Your task to perform on an android device: make emails show in primary in the gmail app Image 0: 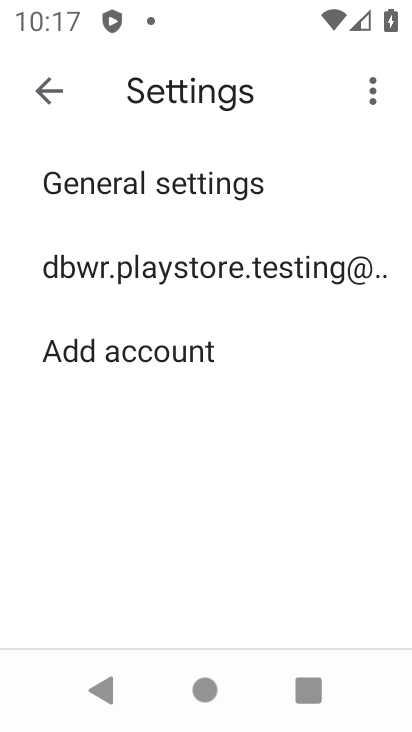
Step 0: click (255, 269)
Your task to perform on an android device: make emails show in primary in the gmail app Image 1: 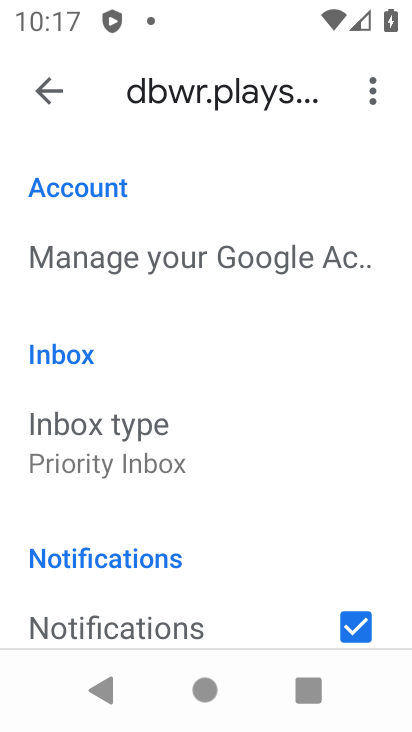
Step 1: drag from (136, 542) to (142, 227)
Your task to perform on an android device: make emails show in primary in the gmail app Image 2: 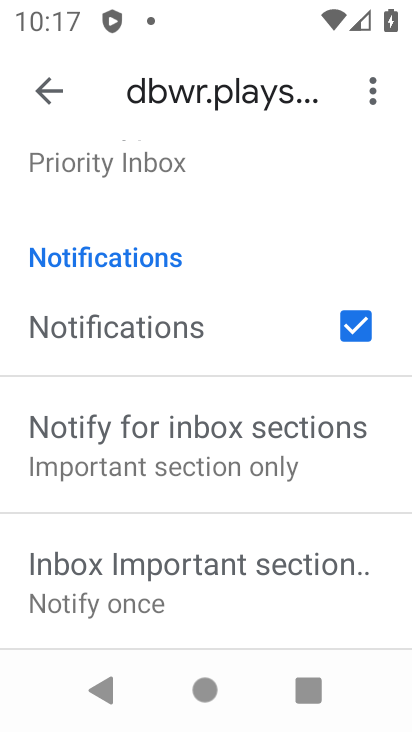
Step 2: drag from (206, 197) to (198, 559)
Your task to perform on an android device: make emails show in primary in the gmail app Image 3: 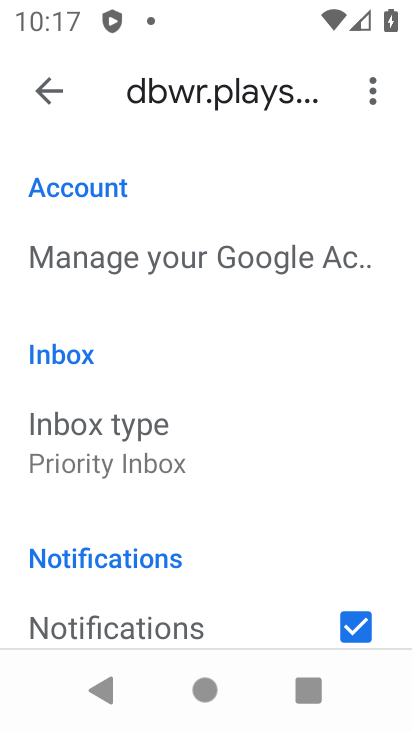
Step 3: click (108, 434)
Your task to perform on an android device: make emails show in primary in the gmail app Image 4: 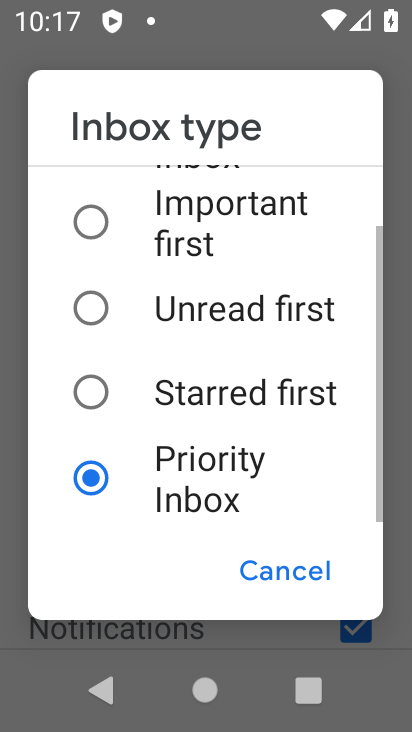
Step 4: drag from (236, 203) to (239, 437)
Your task to perform on an android device: make emails show in primary in the gmail app Image 5: 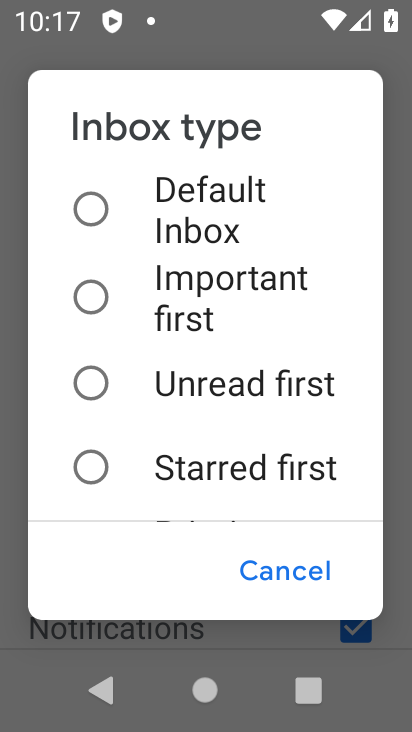
Step 5: click (88, 206)
Your task to perform on an android device: make emails show in primary in the gmail app Image 6: 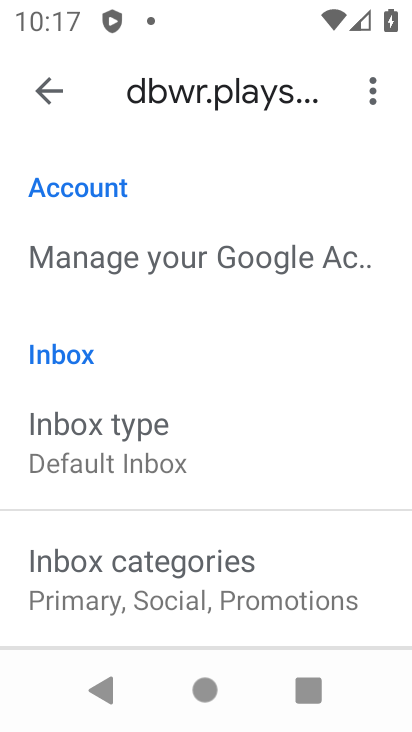
Step 6: drag from (239, 599) to (238, 385)
Your task to perform on an android device: make emails show in primary in the gmail app Image 7: 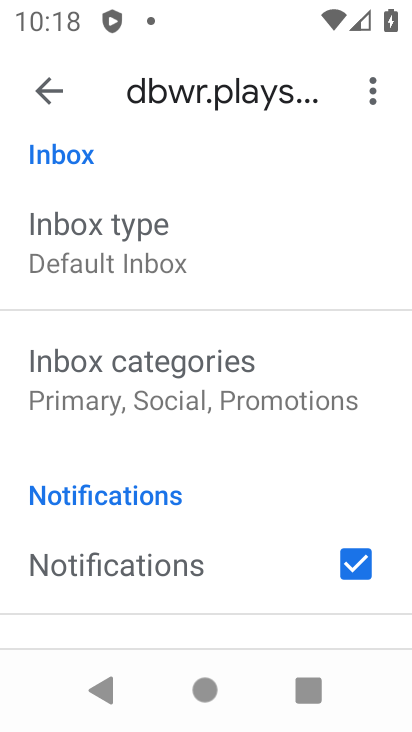
Step 7: click (218, 375)
Your task to perform on an android device: make emails show in primary in the gmail app Image 8: 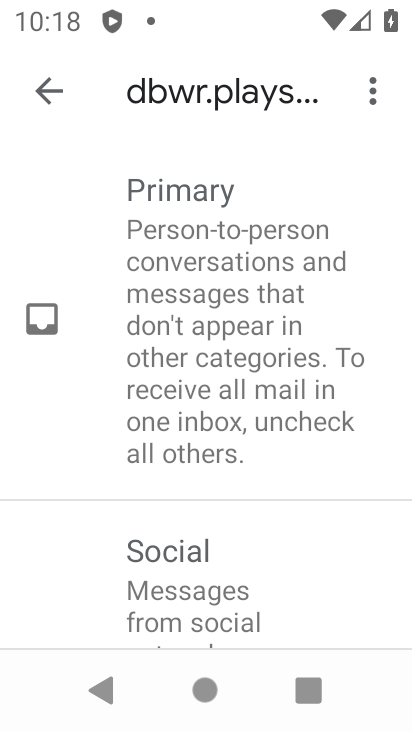
Step 8: drag from (212, 562) to (202, 137)
Your task to perform on an android device: make emails show in primary in the gmail app Image 9: 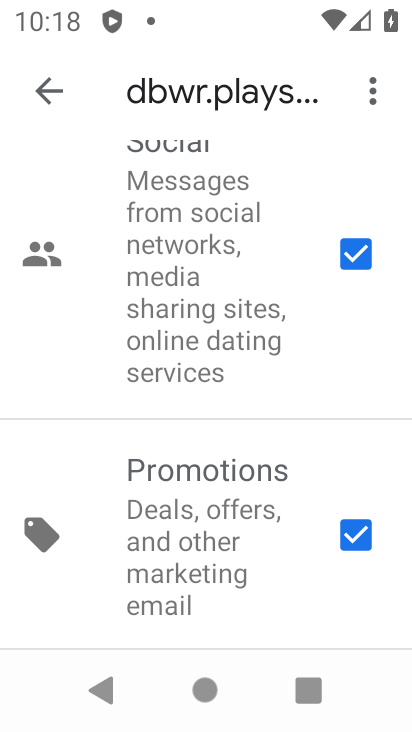
Step 9: click (358, 532)
Your task to perform on an android device: make emails show in primary in the gmail app Image 10: 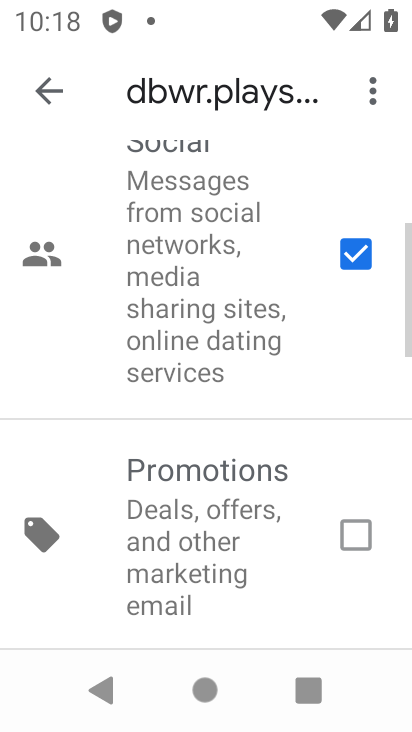
Step 10: click (348, 251)
Your task to perform on an android device: make emails show in primary in the gmail app Image 11: 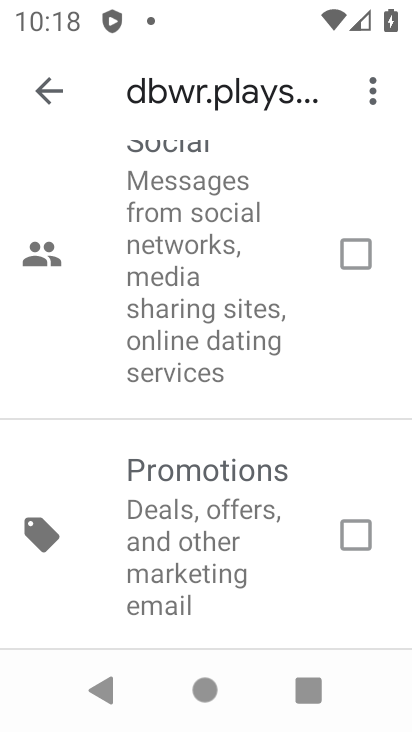
Step 11: drag from (230, 245) to (233, 502)
Your task to perform on an android device: make emails show in primary in the gmail app Image 12: 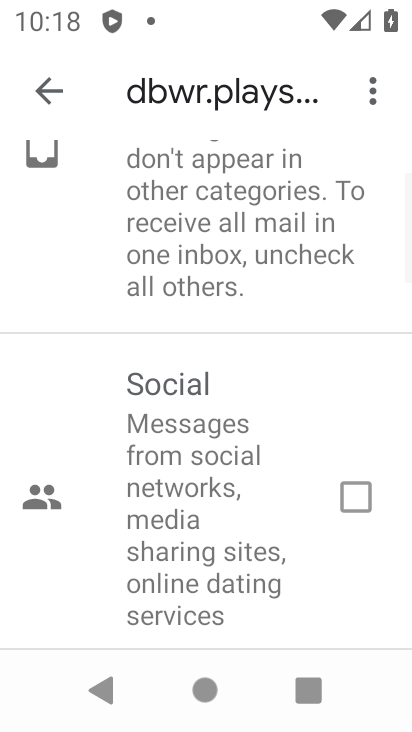
Step 12: drag from (205, 223) to (197, 511)
Your task to perform on an android device: make emails show in primary in the gmail app Image 13: 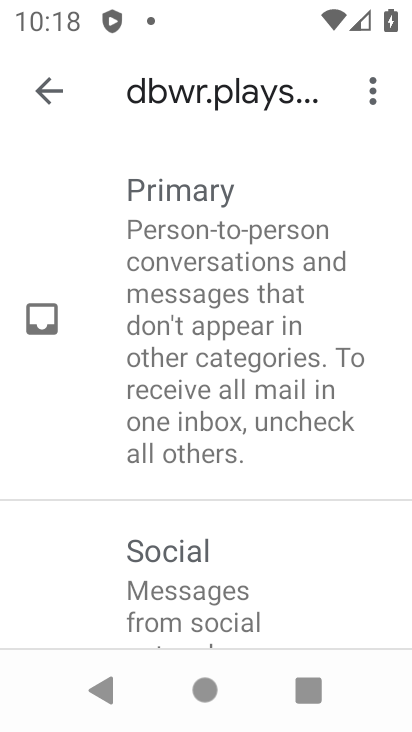
Step 13: drag from (194, 505) to (198, 198)
Your task to perform on an android device: make emails show in primary in the gmail app Image 14: 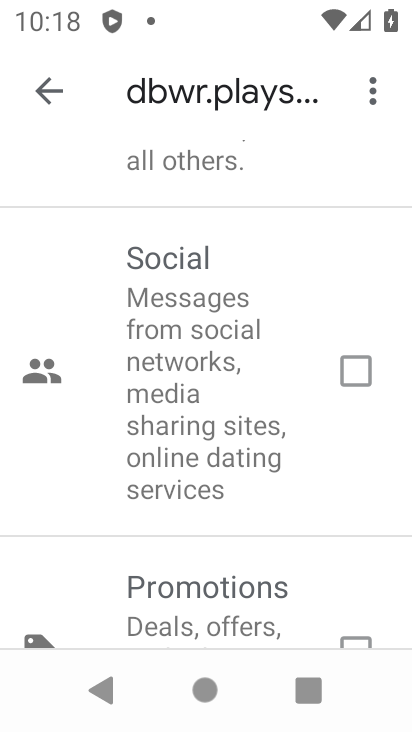
Step 14: drag from (253, 602) to (249, 203)
Your task to perform on an android device: make emails show in primary in the gmail app Image 15: 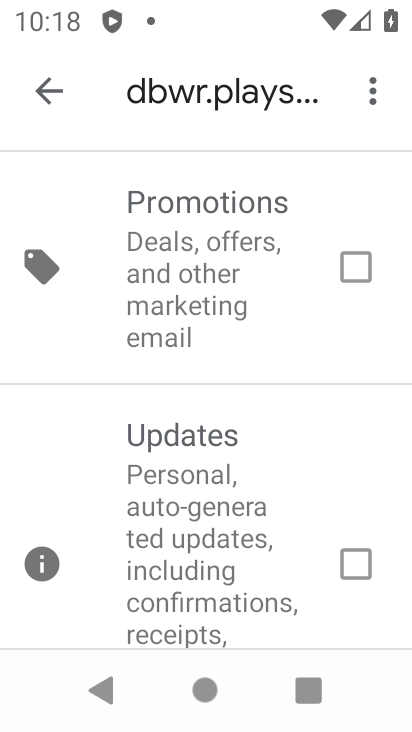
Step 15: drag from (224, 593) to (192, 293)
Your task to perform on an android device: make emails show in primary in the gmail app Image 16: 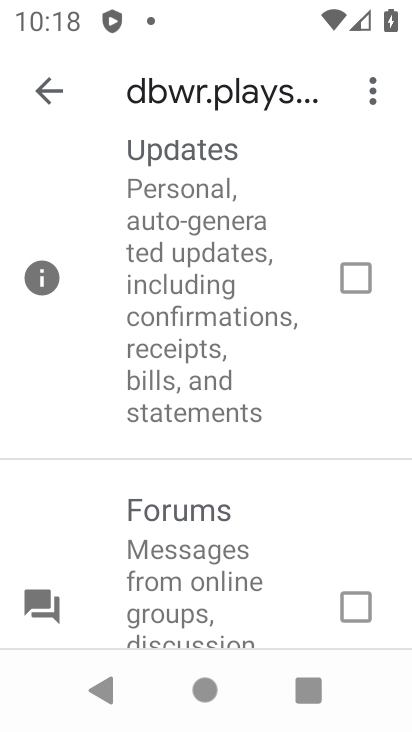
Step 16: click (47, 90)
Your task to perform on an android device: make emails show in primary in the gmail app Image 17: 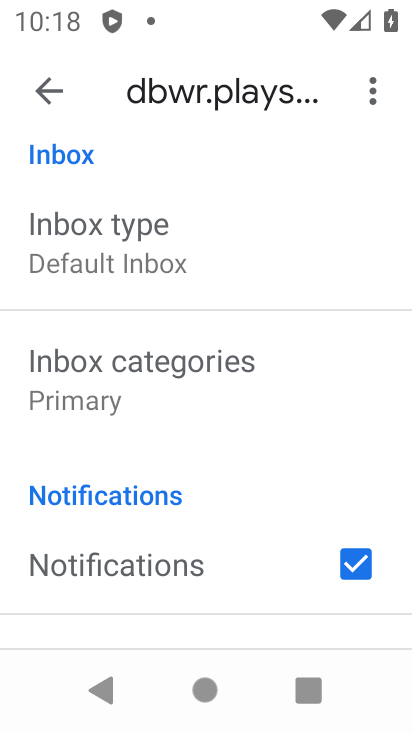
Step 17: task complete